Your task to perform on an android device: turn smart compose on in the gmail app Image 0: 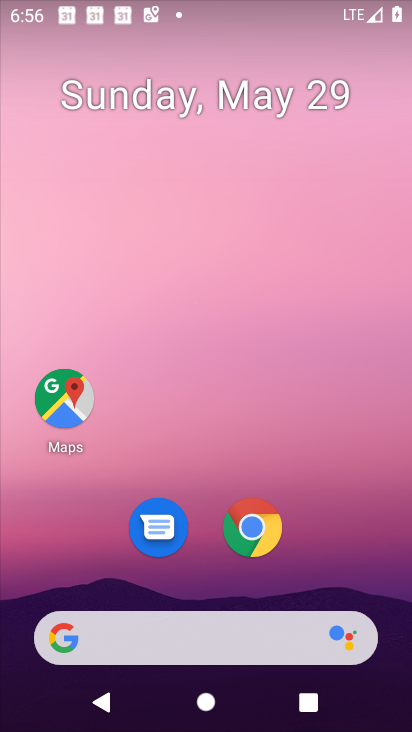
Step 0: drag from (396, 638) to (273, 12)
Your task to perform on an android device: turn smart compose on in the gmail app Image 1: 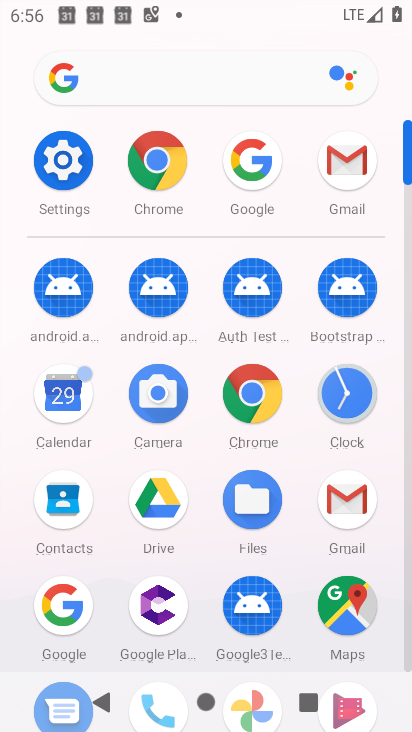
Step 1: click (354, 491)
Your task to perform on an android device: turn smart compose on in the gmail app Image 2: 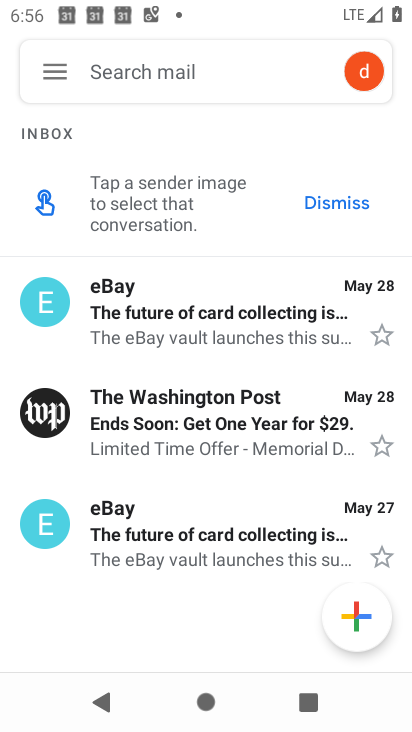
Step 2: click (57, 56)
Your task to perform on an android device: turn smart compose on in the gmail app Image 3: 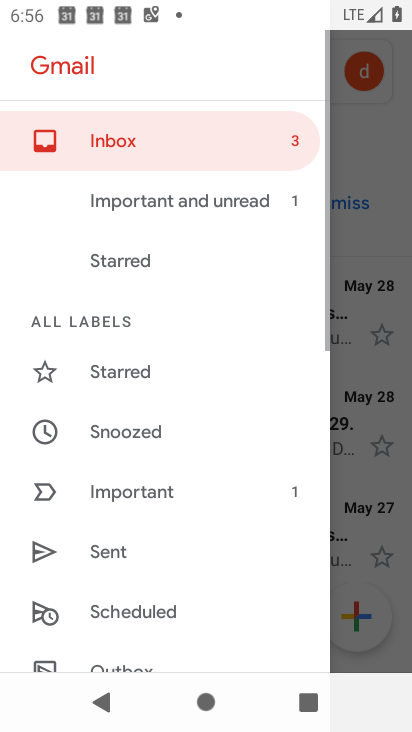
Step 3: drag from (195, 603) to (177, 41)
Your task to perform on an android device: turn smart compose on in the gmail app Image 4: 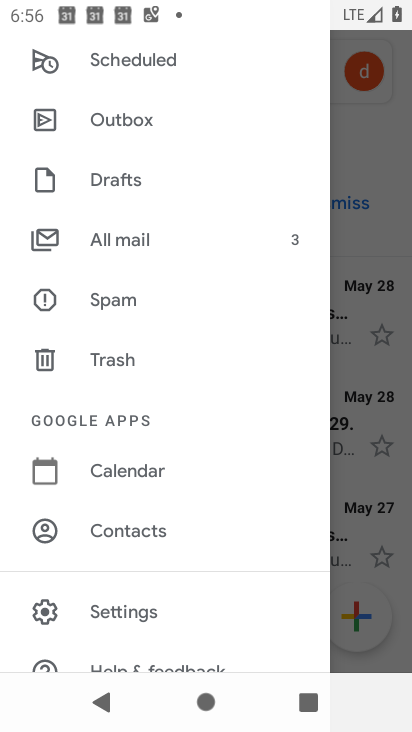
Step 4: click (142, 603)
Your task to perform on an android device: turn smart compose on in the gmail app Image 5: 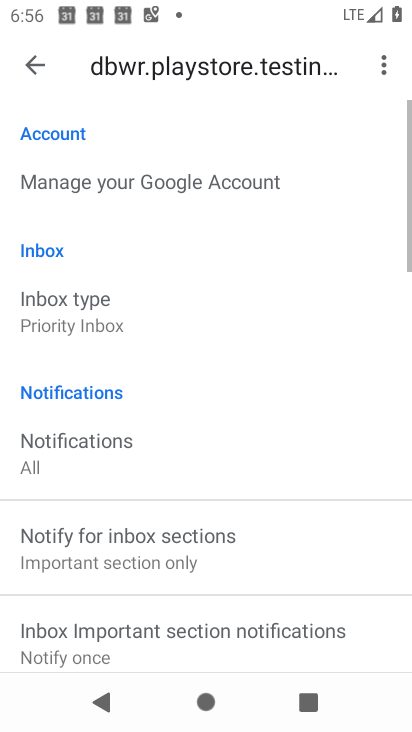
Step 5: task complete